Your task to perform on an android device: find photos in the google photos app Image 0: 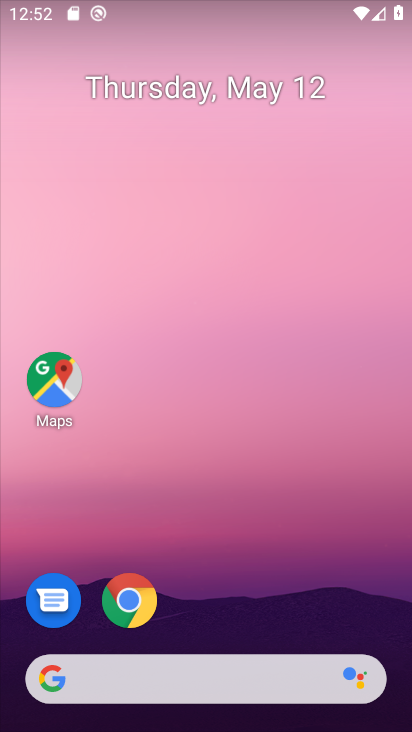
Step 0: drag from (197, 646) to (256, 234)
Your task to perform on an android device: find photos in the google photos app Image 1: 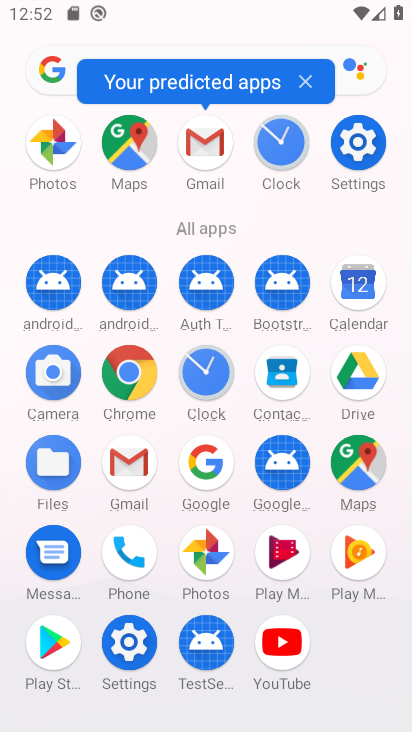
Step 1: click (200, 548)
Your task to perform on an android device: find photos in the google photos app Image 2: 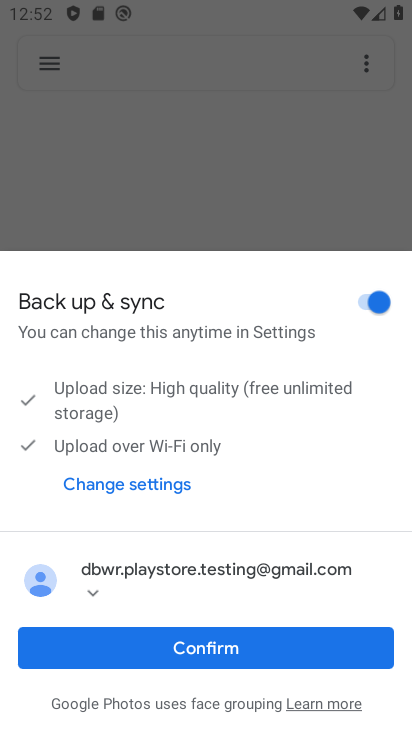
Step 2: click (227, 654)
Your task to perform on an android device: find photos in the google photos app Image 3: 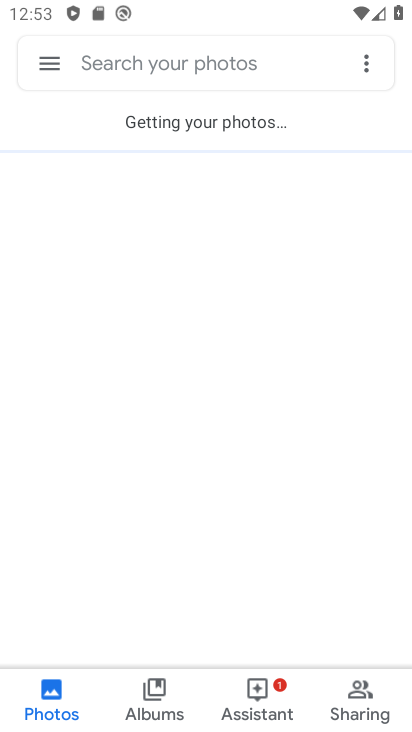
Step 3: task complete